Your task to perform on an android device: delete a single message in the gmail app Image 0: 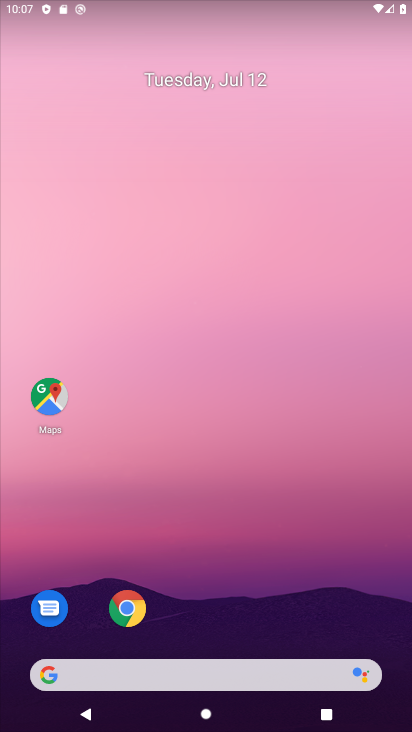
Step 0: drag from (253, 584) to (243, 0)
Your task to perform on an android device: delete a single message in the gmail app Image 1: 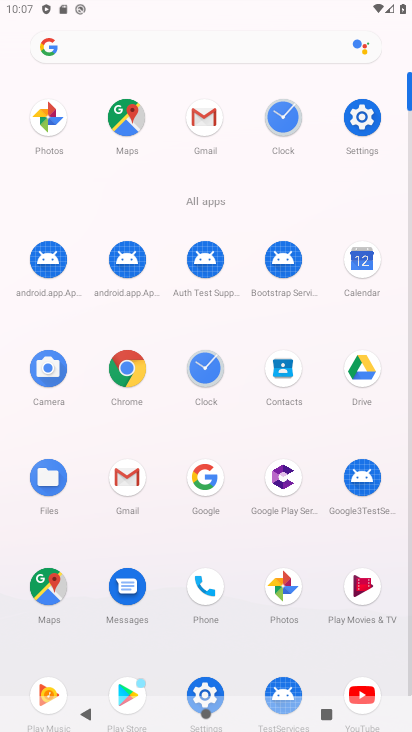
Step 1: click (203, 123)
Your task to perform on an android device: delete a single message in the gmail app Image 2: 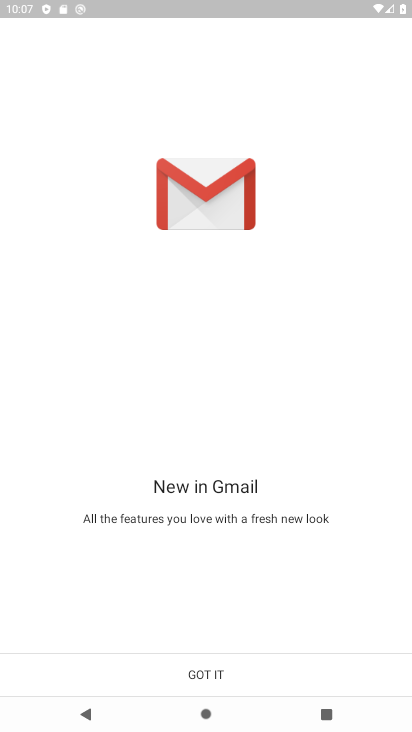
Step 2: click (241, 674)
Your task to perform on an android device: delete a single message in the gmail app Image 3: 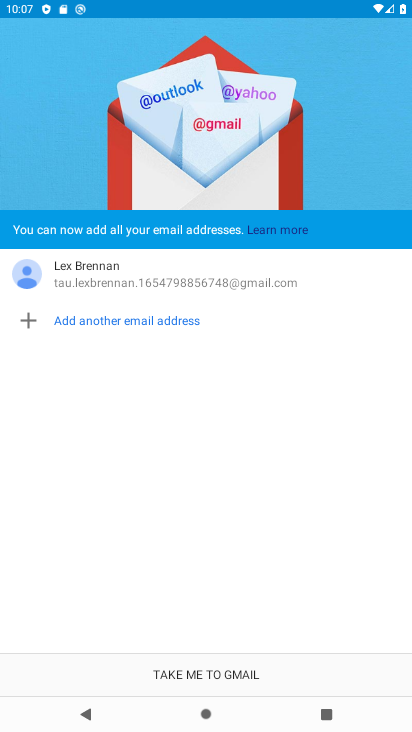
Step 3: click (275, 658)
Your task to perform on an android device: delete a single message in the gmail app Image 4: 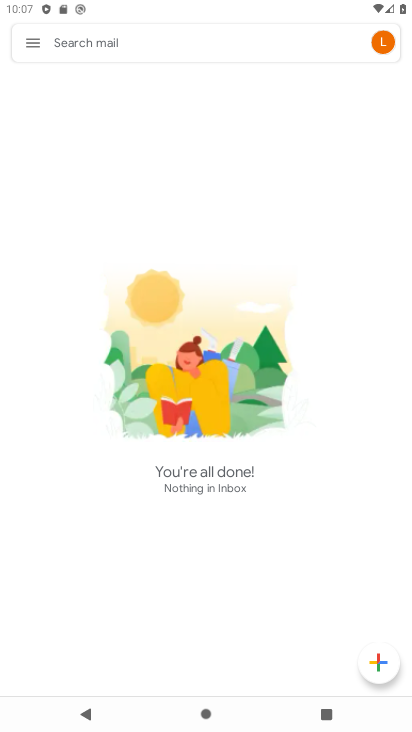
Step 4: click (38, 45)
Your task to perform on an android device: delete a single message in the gmail app Image 5: 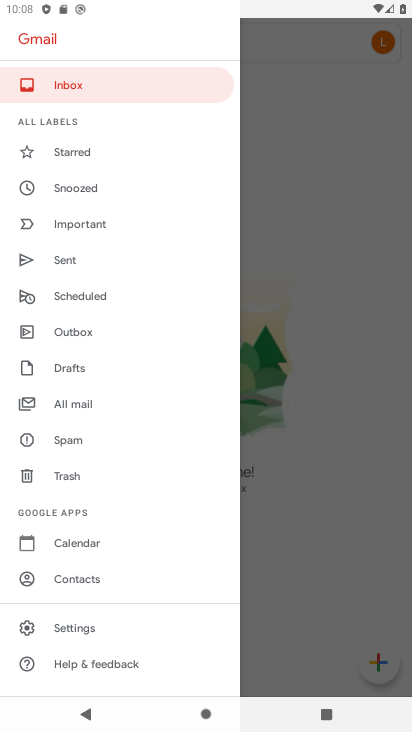
Step 5: click (75, 406)
Your task to perform on an android device: delete a single message in the gmail app Image 6: 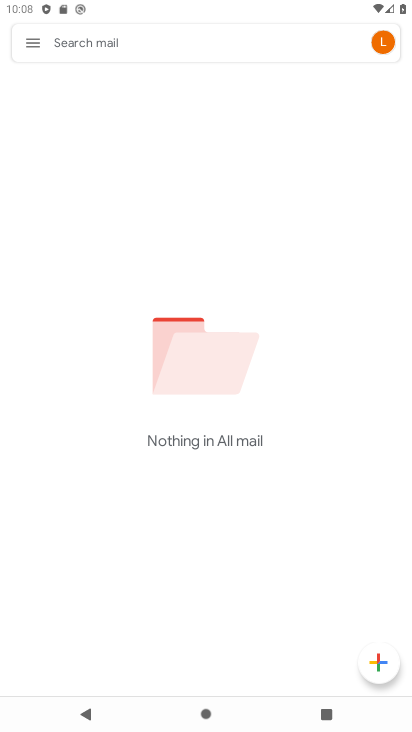
Step 6: task complete